Your task to perform on an android device: Clear the shopping cart on amazon.com. Add "amazon basics triple a" to the cart on amazon.com Image 0: 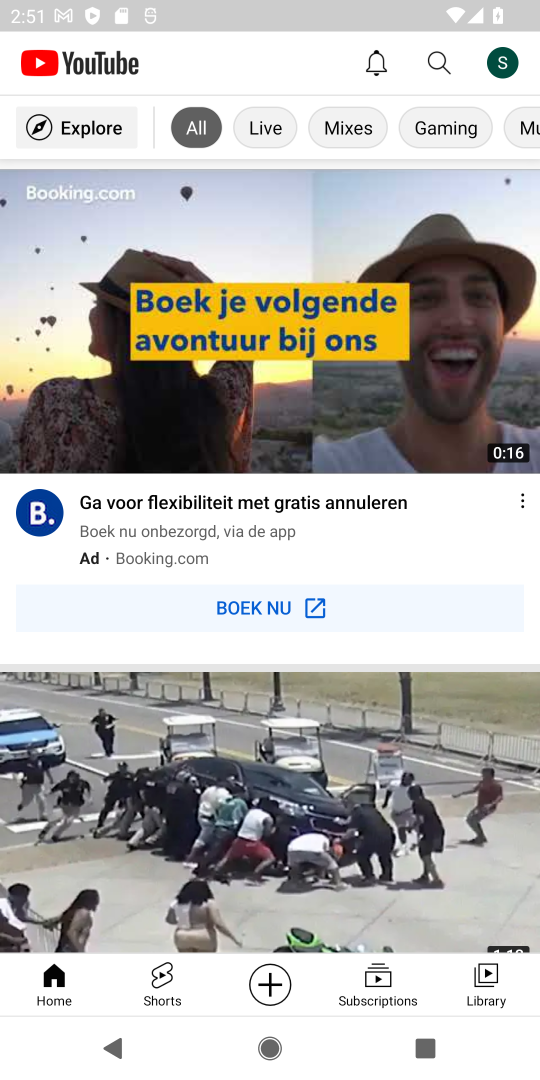
Step 0: press home button
Your task to perform on an android device: Clear the shopping cart on amazon.com. Add "amazon basics triple a" to the cart on amazon.com Image 1: 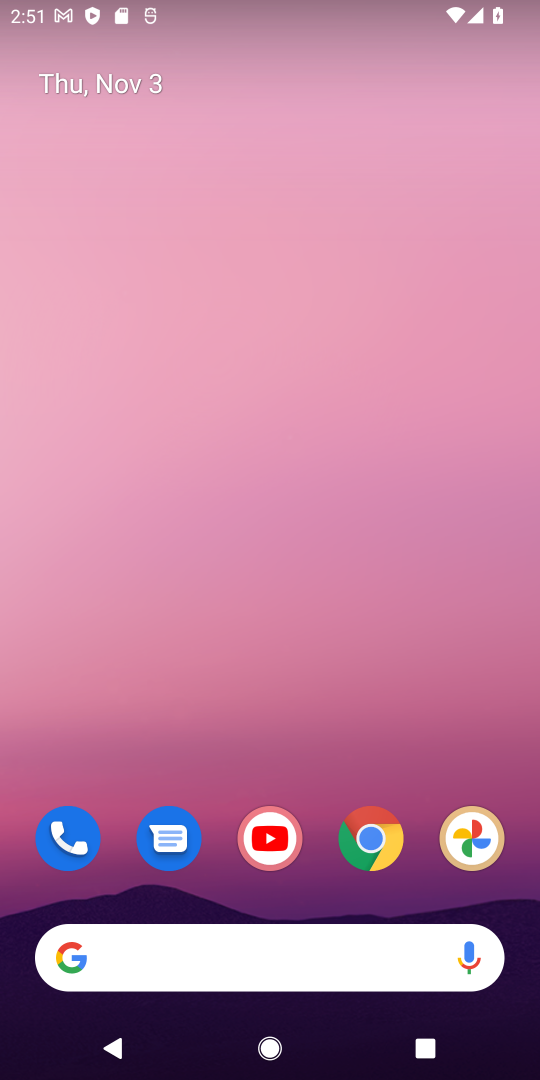
Step 1: drag from (323, 906) to (282, 378)
Your task to perform on an android device: Clear the shopping cart on amazon.com. Add "amazon basics triple a" to the cart on amazon.com Image 2: 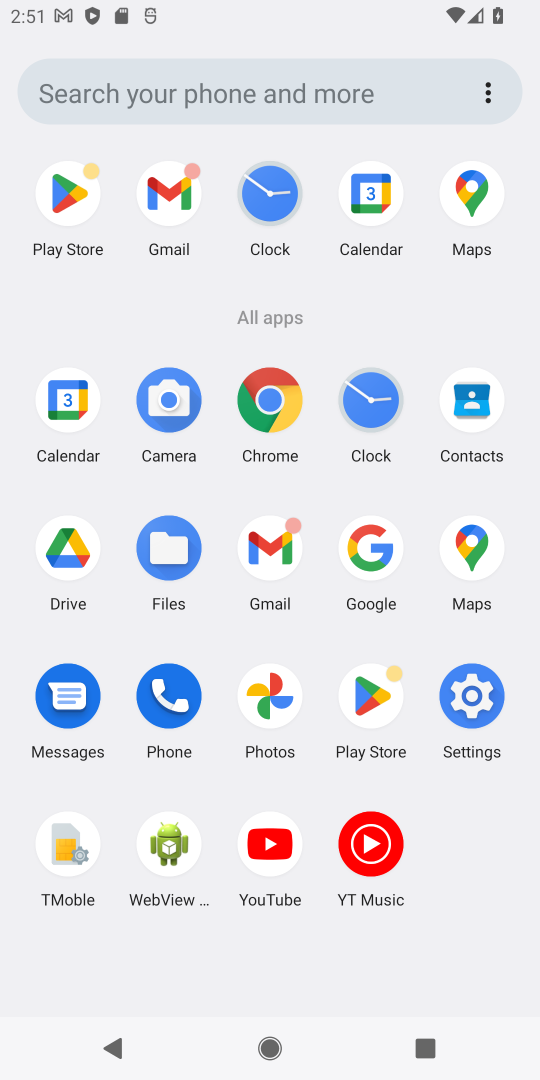
Step 2: click (272, 396)
Your task to perform on an android device: Clear the shopping cart on amazon.com. Add "amazon basics triple a" to the cart on amazon.com Image 3: 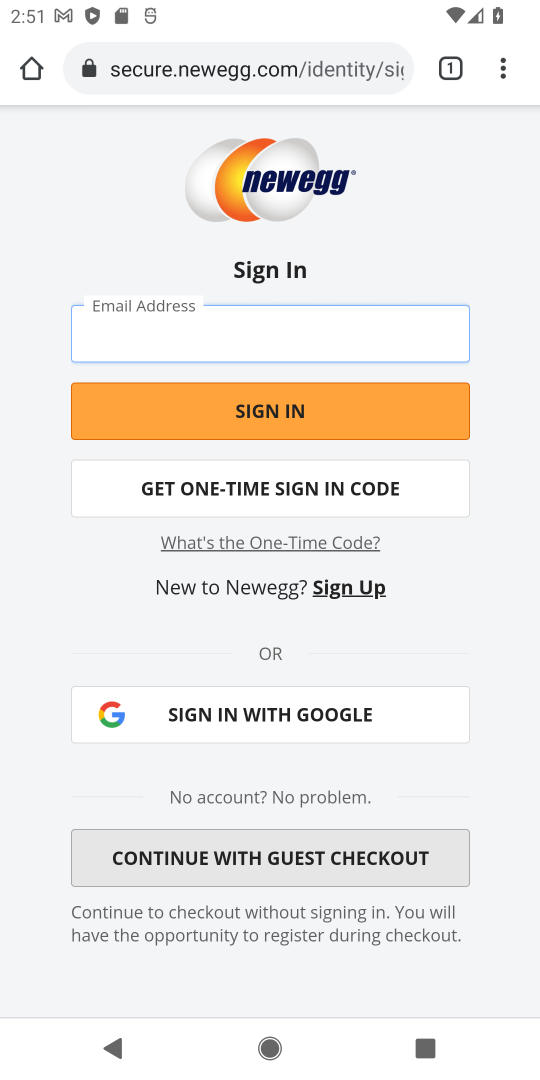
Step 3: click (263, 60)
Your task to perform on an android device: Clear the shopping cart on amazon.com. Add "amazon basics triple a" to the cart on amazon.com Image 4: 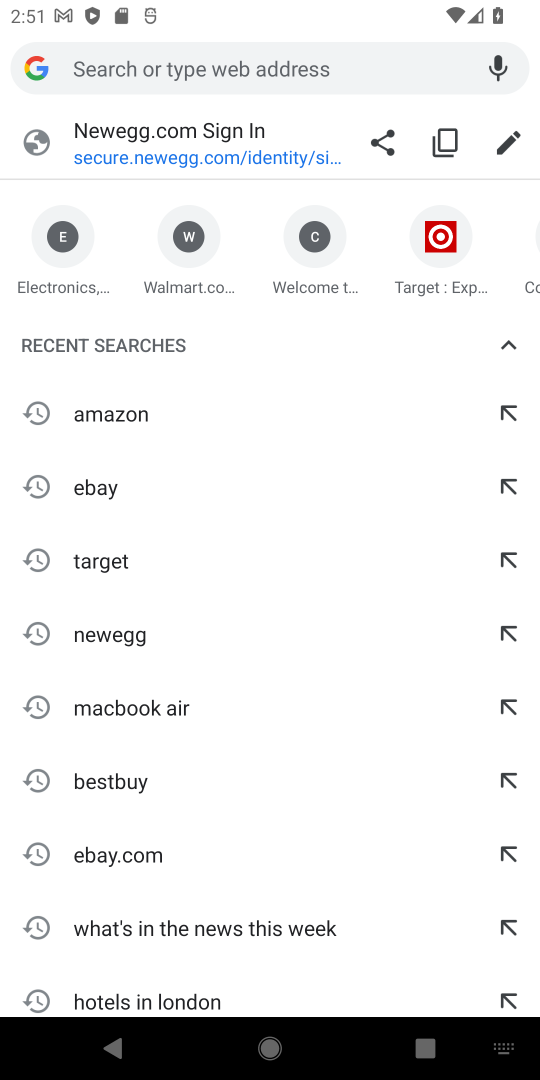
Step 4: type "amazon.com"
Your task to perform on an android device: Clear the shopping cart on amazon.com. Add "amazon basics triple a" to the cart on amazon.com Image 5: 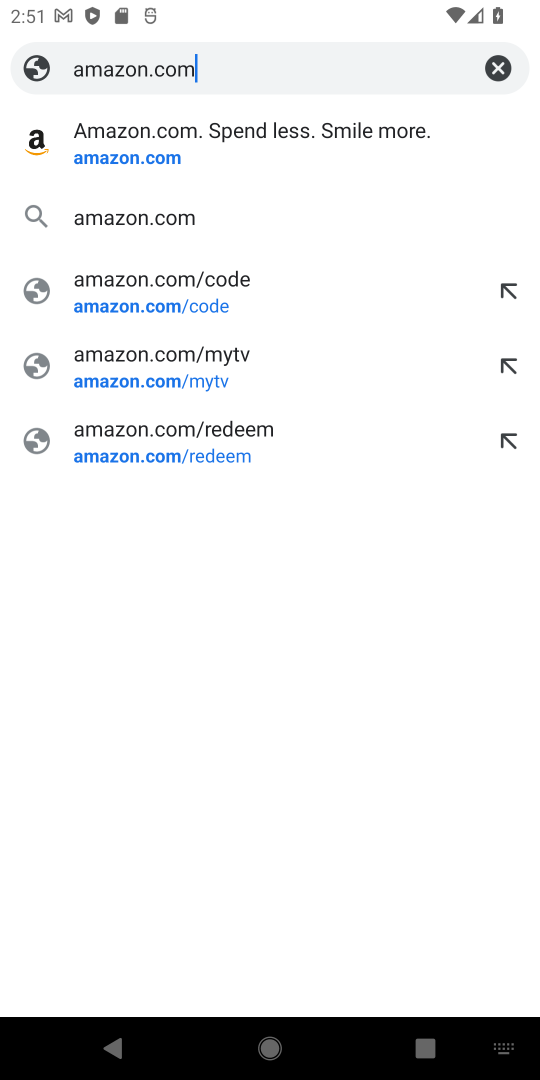
Step 5: press enter
Your task to perform on an android device: Clear the shopping cart on amazon.com. Add "amazon basics triple a" to the cart on amazon.com Image 6: 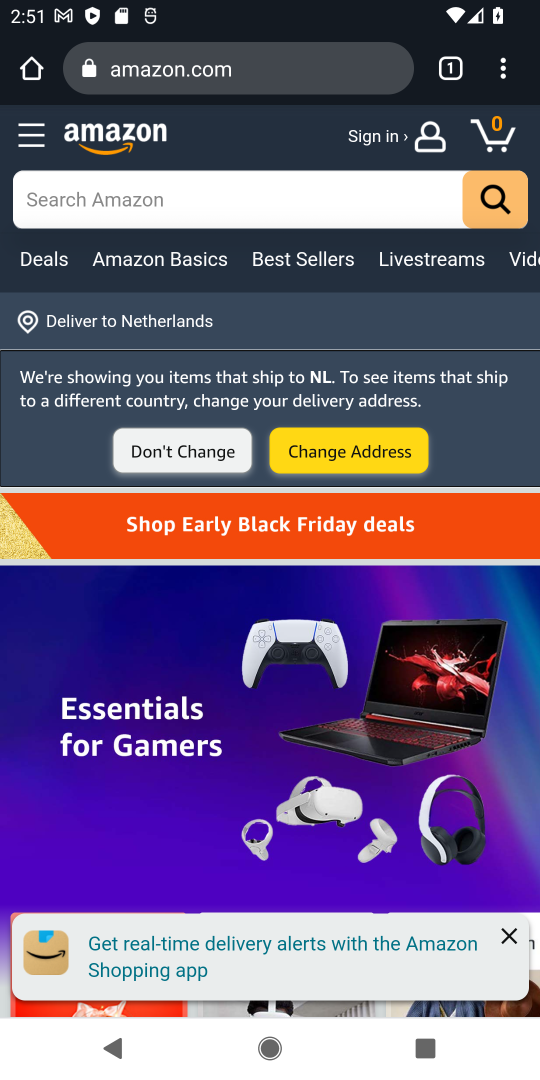
Step 6: click (487, 143)
Your task to perform on an android device: Clear the shopping cart on amazon.com. Add "amazon basics triple a" to the cart on amazon.com Image 7: 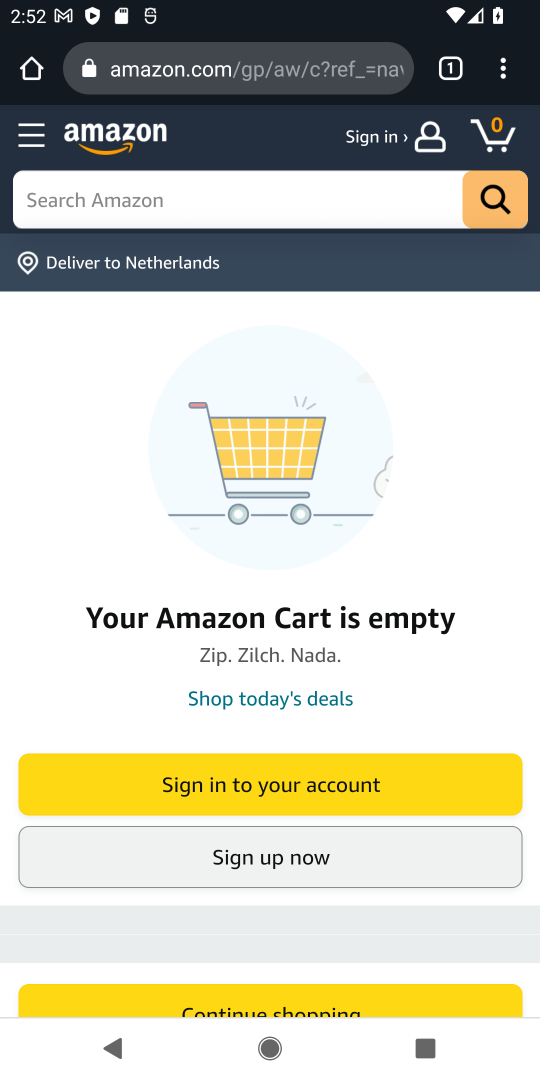
Step 7: click (316, 204)
Your task to perform on an android device: Clear the shopping cart on amazon.com. Add "amazon basics triple a" to the cart on amazon.com Image 8: 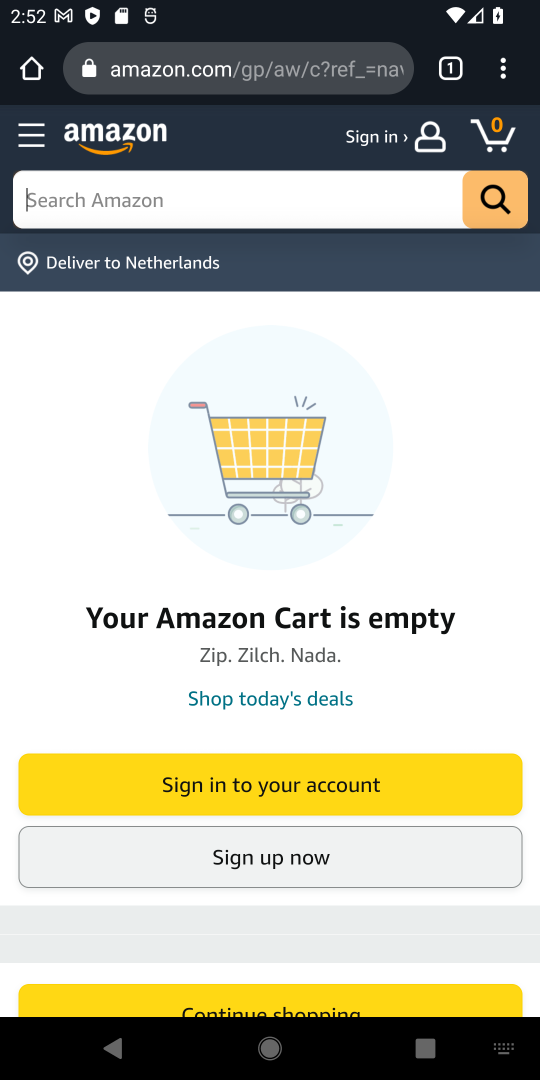
Step 8: type "amazon basics triple a"
Your task to perform on an android device: Clear the shopping cart on amazon.com. Add "amazon basics triple a" to the cart on amazon.com Image 9: 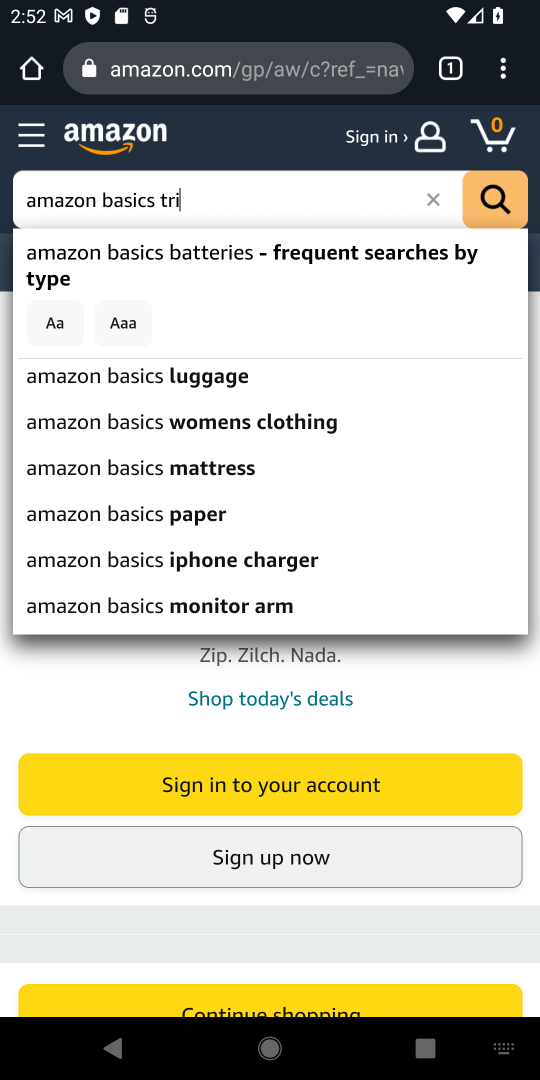
Step 9: press enter
Your task to perform on an android device: Clear the shopping cart on amazon.com. Add "amazon basics triple a" to the cart on amazon.com Image 10: 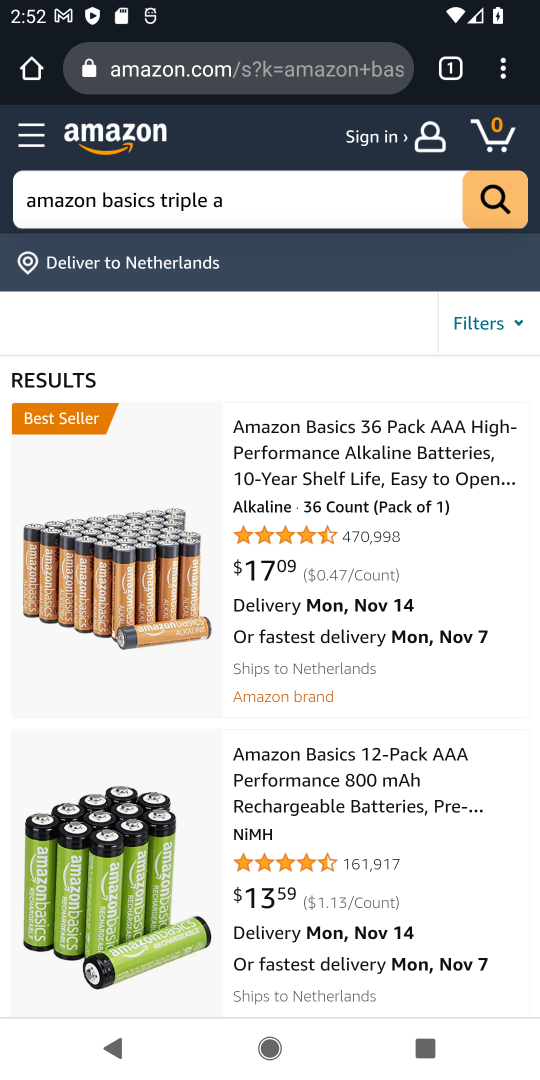
Step 10: click (323, 510)
Your task to perform on an android device: Clear the shopping cart on amazon.com. Add "amazon basics triple a" to the cart on amazon.com Image 11: 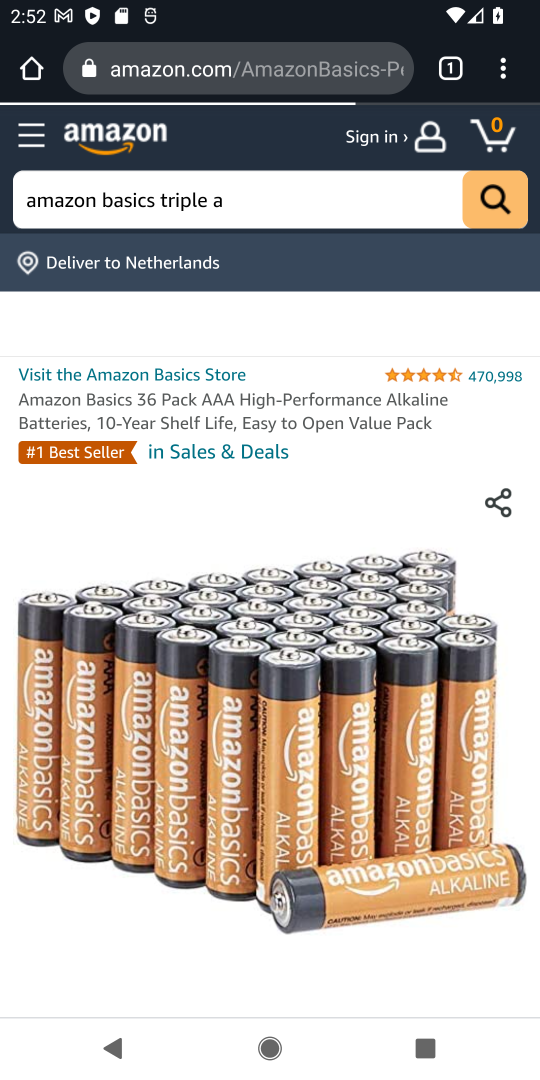
Step 11: drag from (329, 829) to (332, 271)
Your task to perform on an android device: Clear the shopping cart on amazon.com. Add "amazon basics triple a" to the cart on amazon.com Image 12: 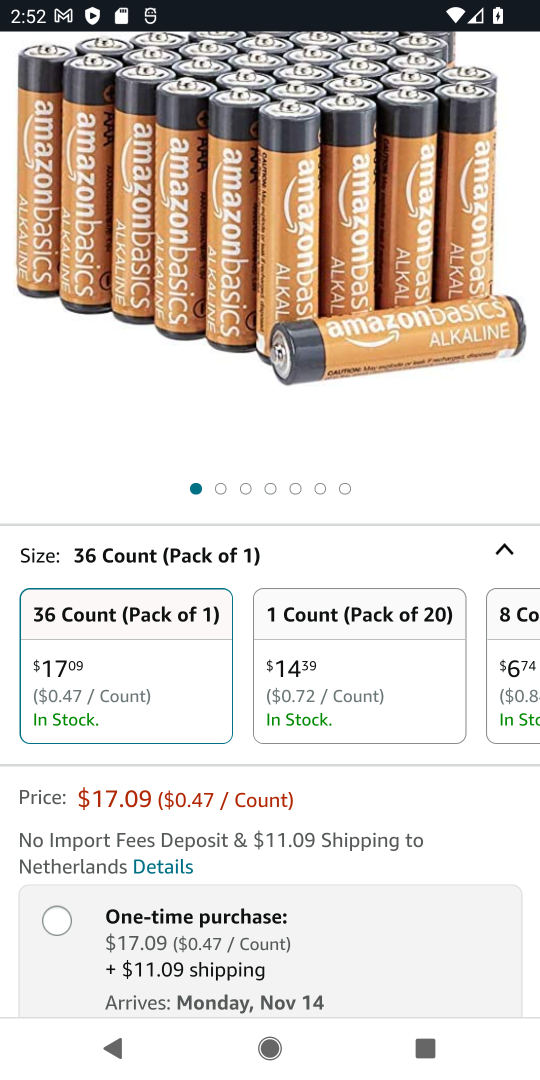
Step 12: drag from (296, 806) to (418, 148)
Your task to perform on an android device: Clear the shopping cart on amazon.com. Add "amazon basics triple a" to the cart on amazon.com Image 13: 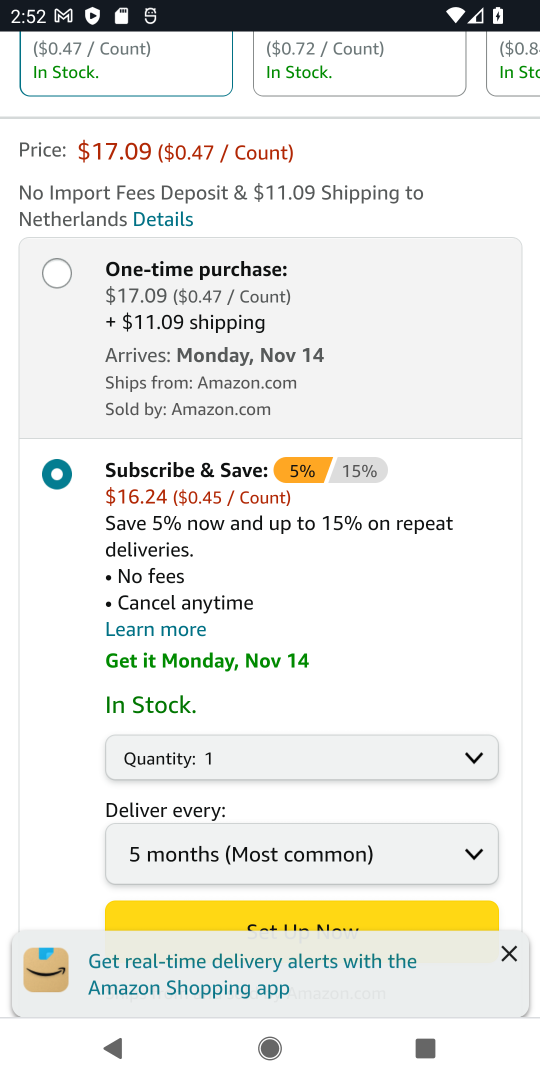
Step 13: drag from (369, 721) to (336, 262)
Your task to perform on an android device: Clear the shopping cart on amazon.com. Add "amazon basics triple a" to the cart on amazon.com Image 14: 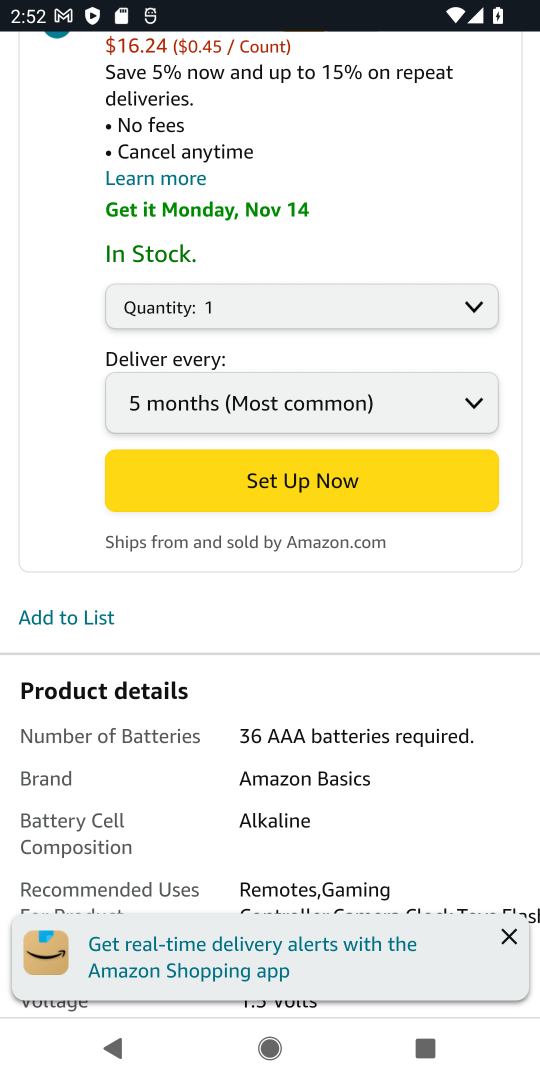
Step 14: drag from (299, 778) to (314, 240)
Your task to perform on an android device: Clear the shopping cart on amazon.com. Add "amazon basics triple a" to the cart on amazon.com Image 15: 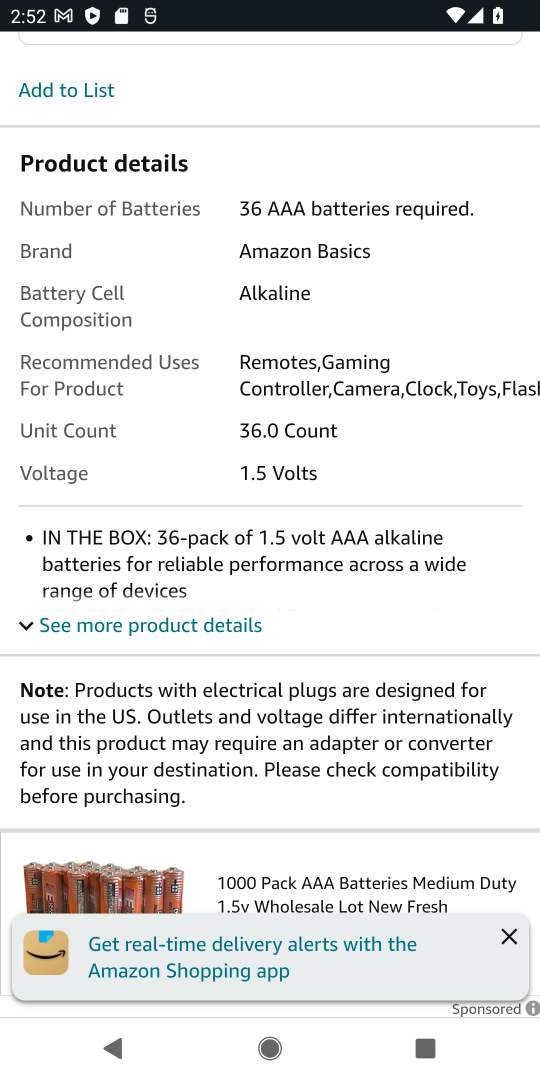
Step 15: drag from (280, 829) to (330, 262)
Your task to perform on an android device: Clear the shopping cart on amazon.com. Add "amazon basics triple a" to the cart on amazon.com Image 16: 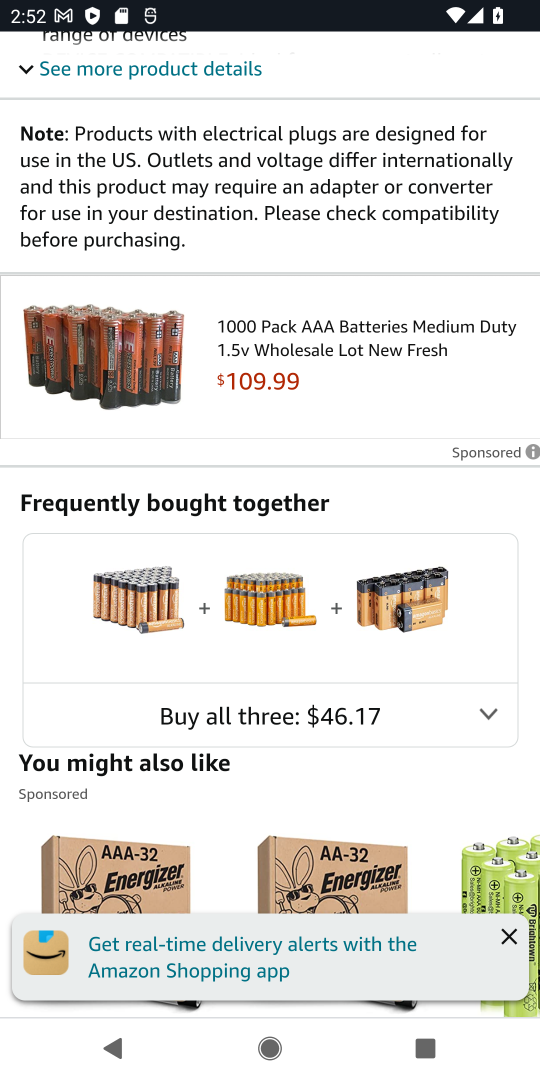
Step 16: drag from (230, 738) to (273, 380)
Your task to perform on an android device: Clear the shopping cart on amazon.com. Add "amazon basics triple a" to the cart on amazon.com Image 17: 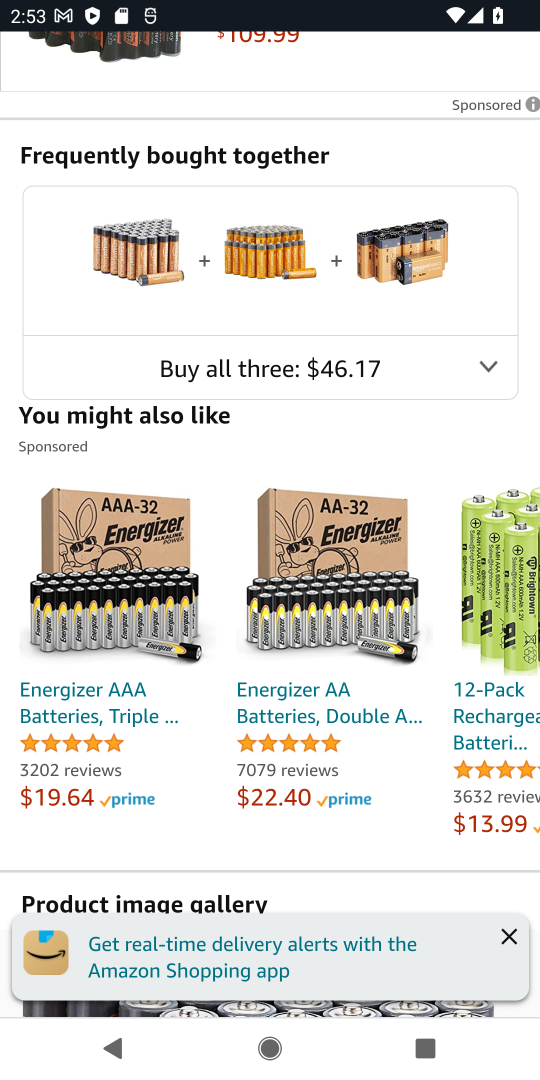
Step 17: drag from (185, 761) to (295, 354)
Your task to perform on an android device: Clear the shopping cart on amazon.com. Add "amazon basics triple a" to the cart on amazon.com Image 18: 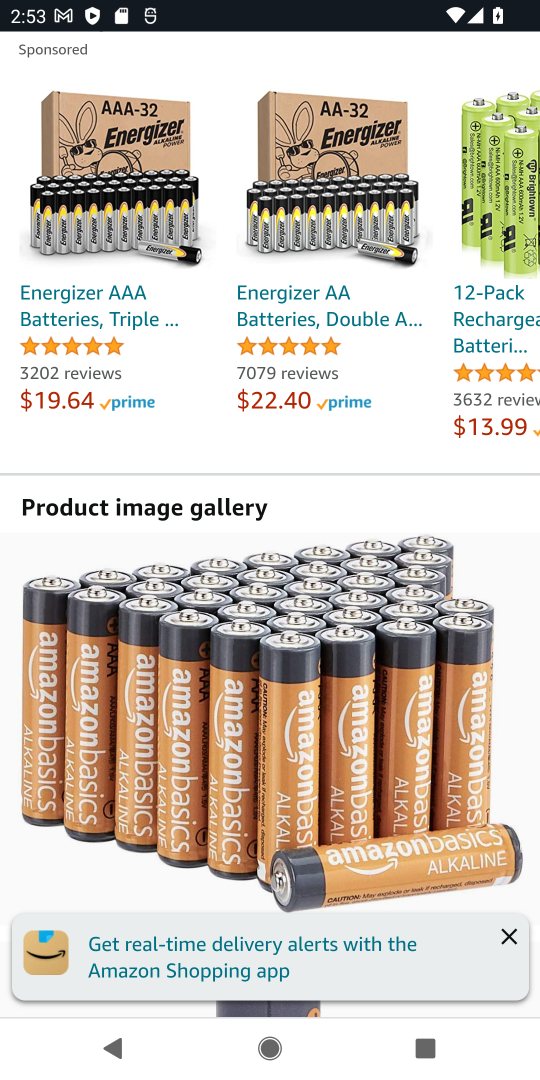
Step 18: drag from (198, 851) to (225, 353)
Your task to perform on an android device: Clear the shopping cart on amazon.com. Add "amazon basics triple a" to the cart on amazon.com Image 19: 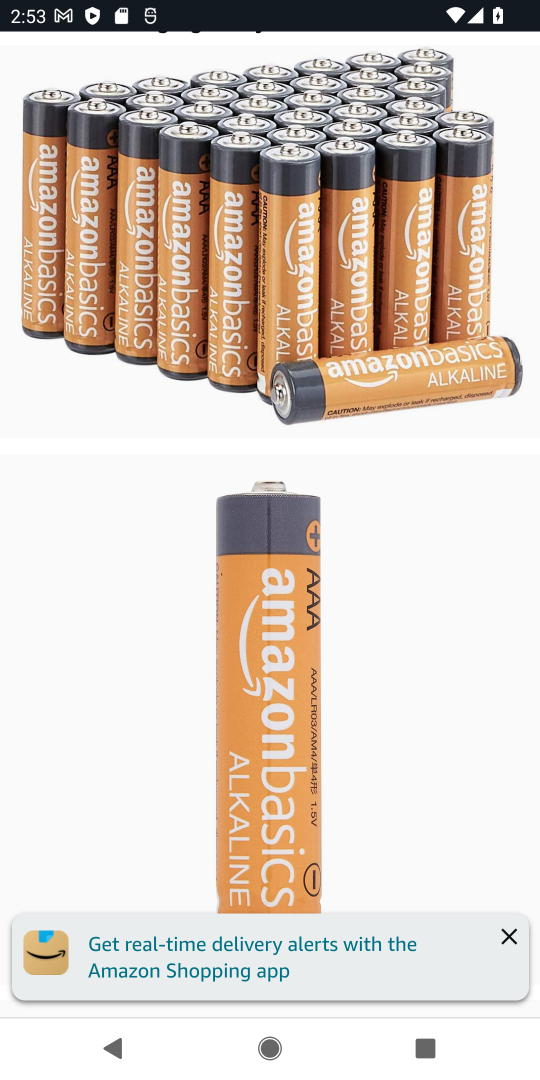
Step 19: drag from (252, 811) to (332, 364)
Your task to perform on an android device: Clear the shopping cart on amazon.com. Add "amazon basics triple a" to the cart on amazon.com Image 20: 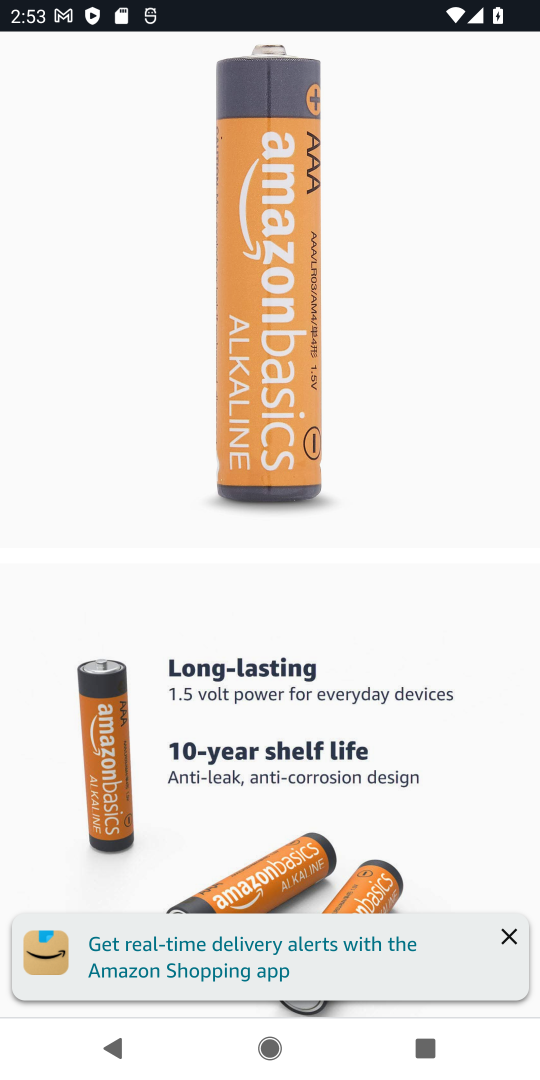
Step 20: drag from (387, 827) to (367, 294)
Your task to perform on an android device: Clear the shopping cart on amazon.com. Add "amazon basics triple a" to the cart on amazon.com Image 21: 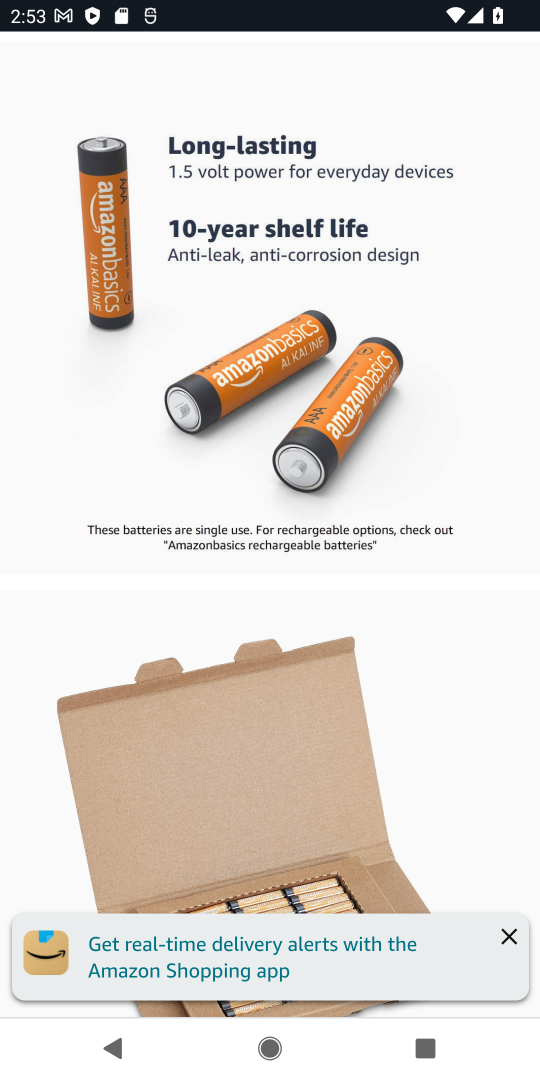
Step 21: drag from (463, 782) to (257, 1065)
Your task to perform on an android device: Clear the shopping cart on amazon.com. Add "amazon basics triple a" to the cart on amazon.com Image 22: 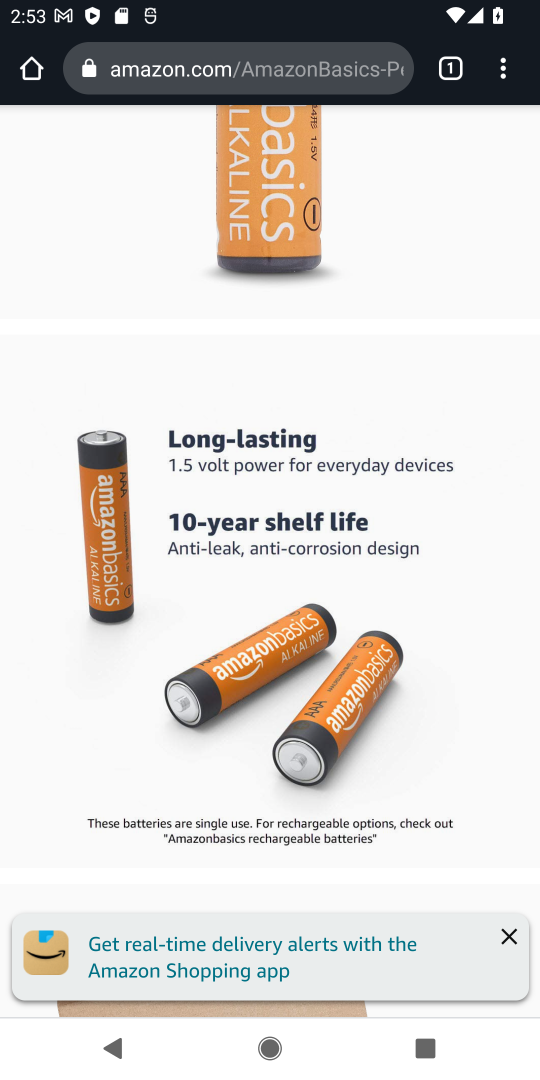
Step 22: drag from (369, 175) to (135, 948)
Your task to perform on an android device: Clear the shopping cart on amazon.com. Add "amazon basics triple a" to the cart on amazon.com Image 23: 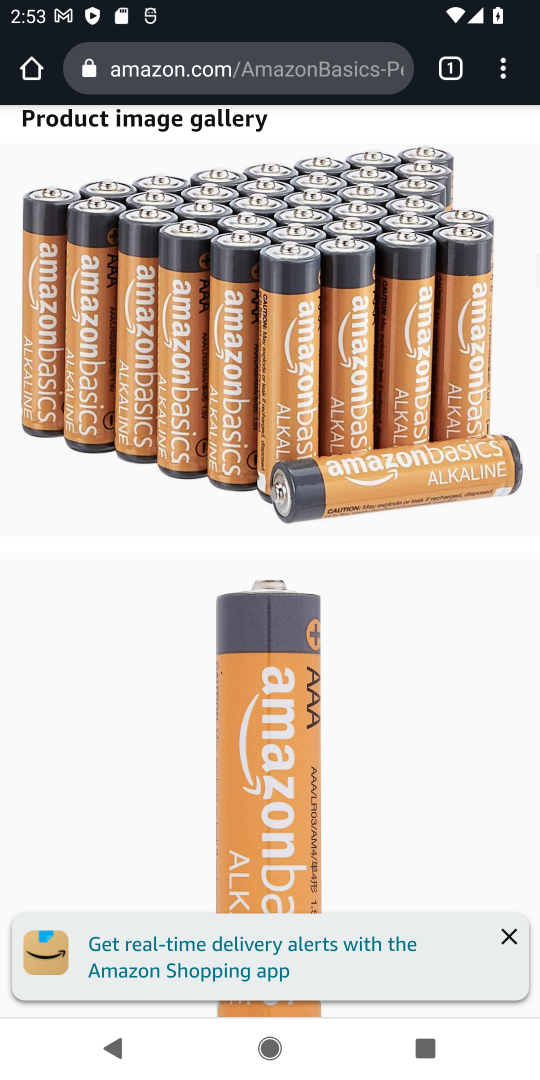
Step 23: drag from (378, 207) to (221, 760)
Your task to perform on an android device: Clear the shopping cart on amazon.com. Add "amazon basics triple a" to the cart on amazon.com Image 24: 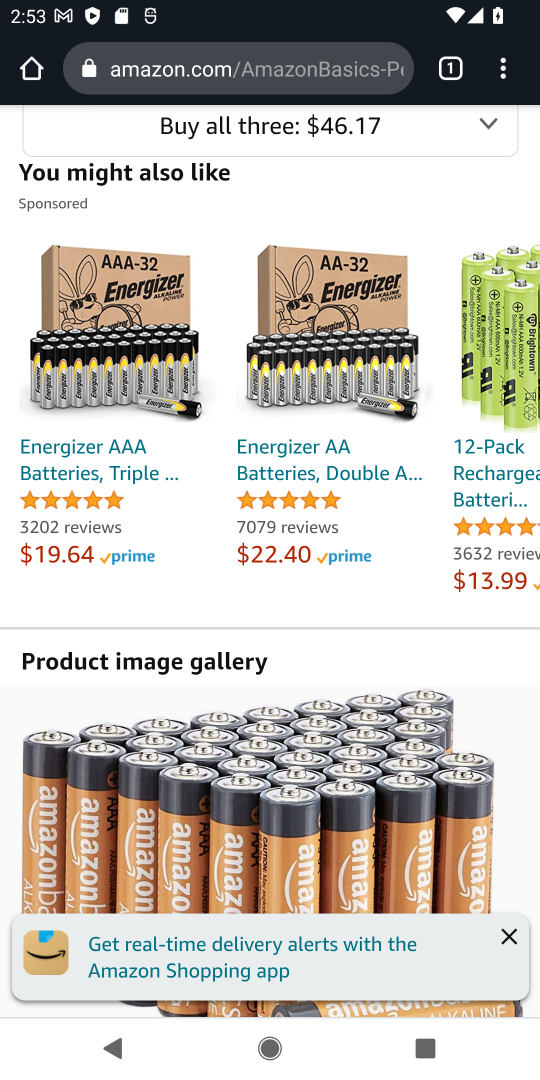
Step 24: drag from (362, 185) to (134, 733)
Your task to perform on an android device: Clear the shopping cart on amazon.com. Add "amazon basics triple a" to the cart on amazon.com Image 25: 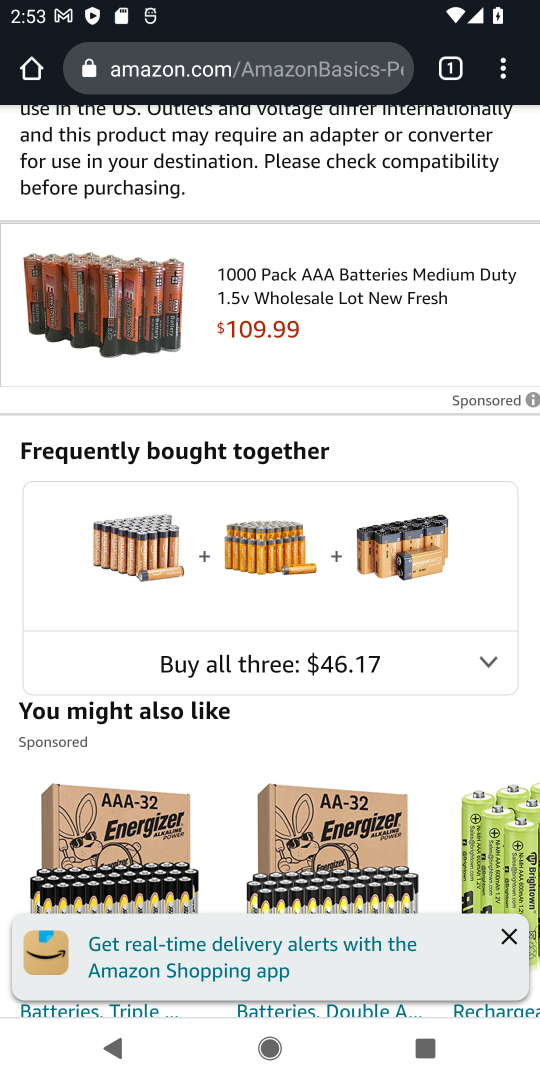
Step 25: drag from (222, 177) to (129, 904)
Your task to perform on an android device: Clear the shopping cart on amazon.com. Add "amazon basics triple a" to the cart on amazon.com Image 26: 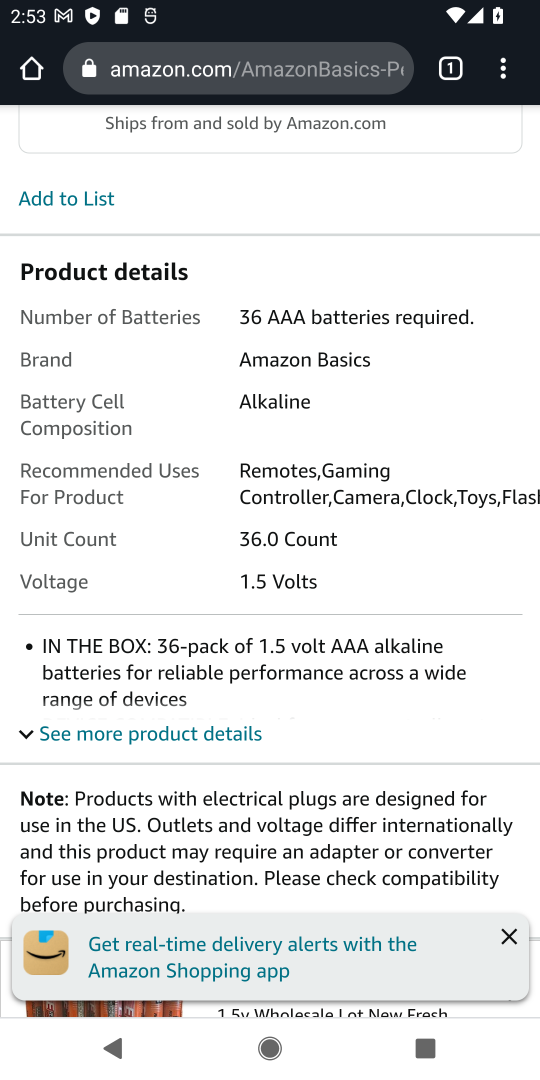
Step 26: drag from (327, 184) to (96, 764)
Your task to perform on an android device: Clear the shopping cart on amazon.com. Add "amazon basics triple a" to the cart on amazon.com Image 27: 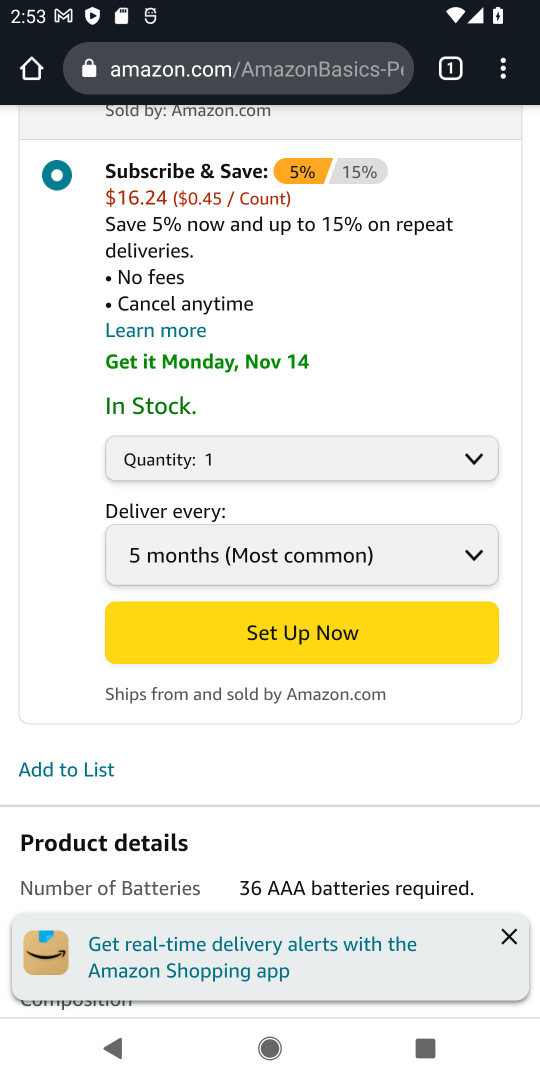
Step 27: drag from (366, 347) to (190, 760)
Your task to perform on an android device: Clear the shopping cart on amazon.com. Add "amazon basics triple a" to the cart on amazon.com Image 28: 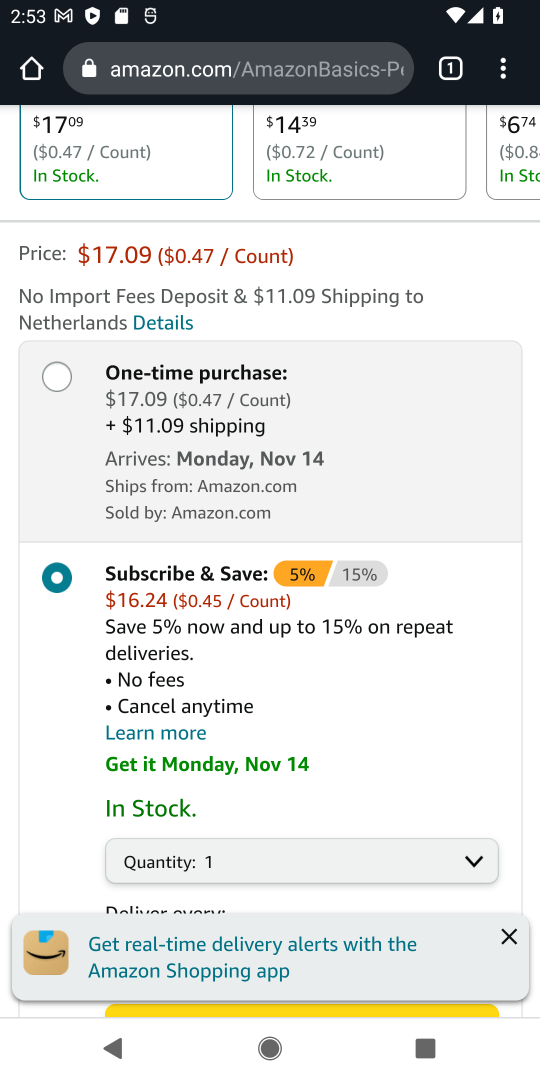
Step 28: click (200, 369)
Your task to perform on an android device: Clear the shopping cart on amazon.com. Add "amazon basics triple a" to the cart on amazon.com Image 29: 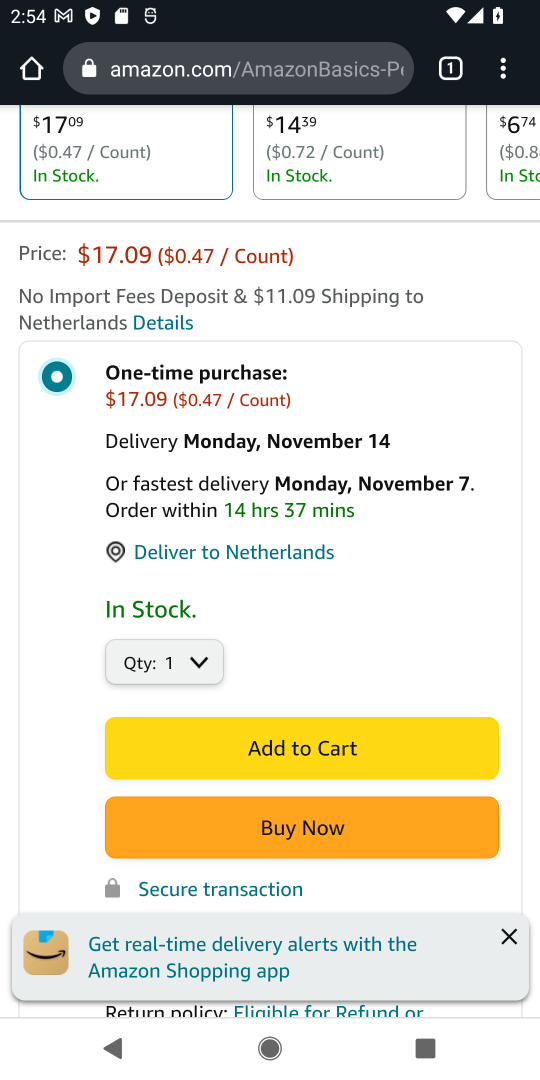
Step 29: click (423, 735)
Your task to perform on an android device: Clear the shopping cart on amazon.com. Add "amazon basics triple a" to the cart on amazon.com Image 30: 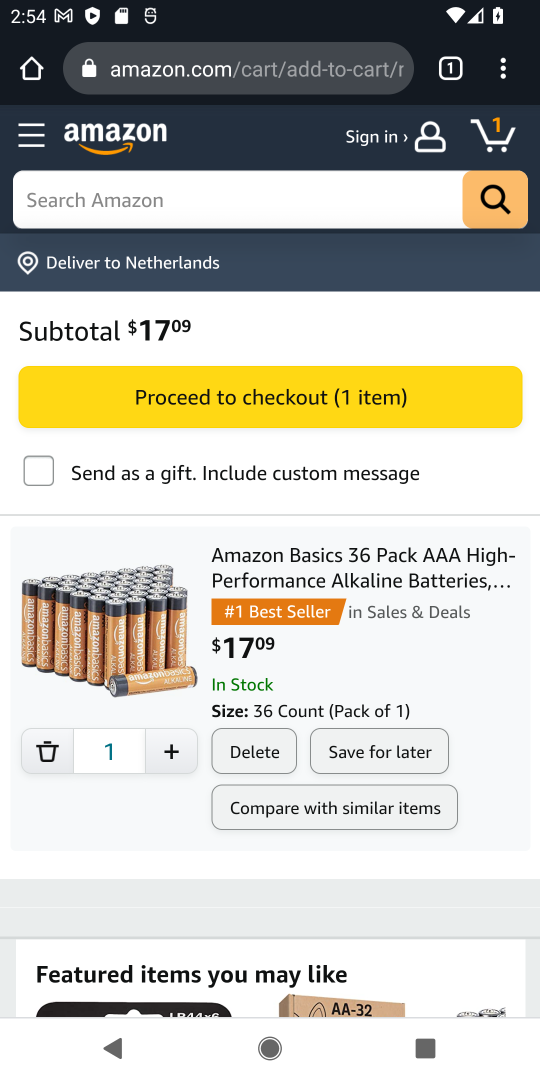
Step 30: task complete